Your task to perform on an android device: turn off smart reply in the gmail app Image 0: 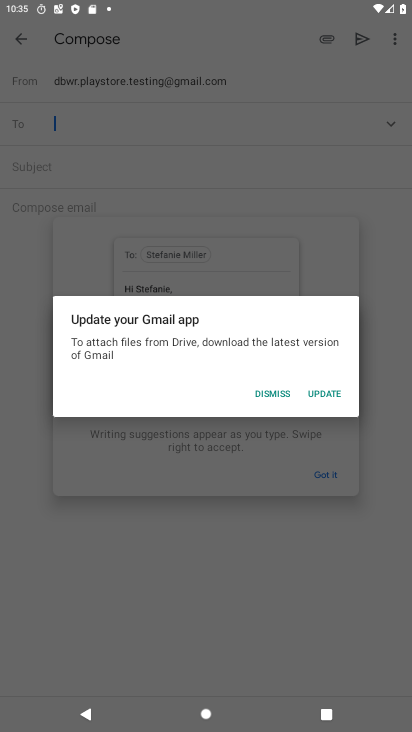
Step 0: press home button
Your task to perform on an android device: turn off smart reply in the gmail app Image 1: 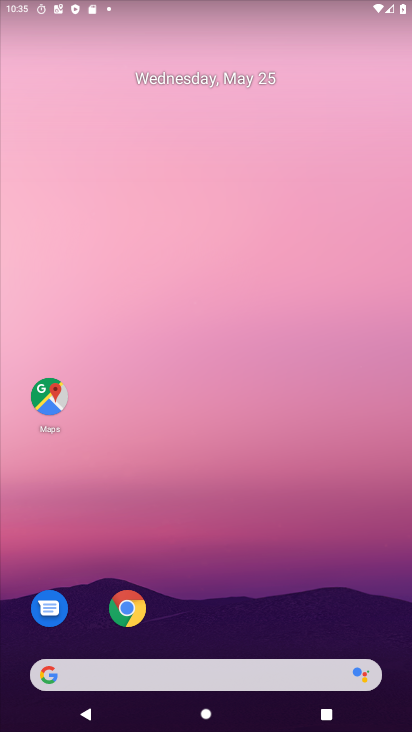
Step 1: drag from (249, 620) to (249, 154)
Your task to perform on an android device: turn off smart reply in the gmail app Image 2: 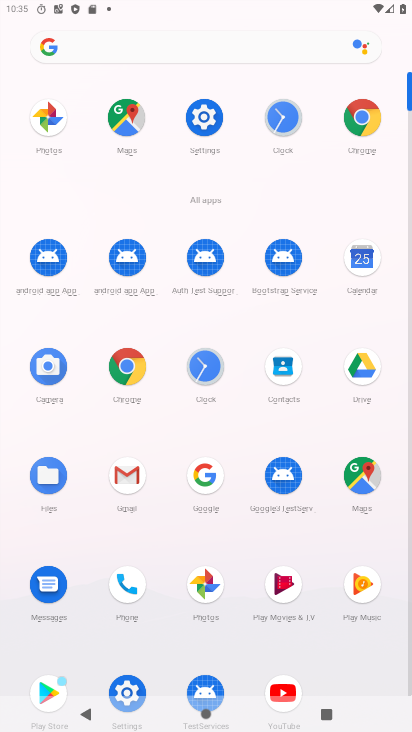
Step 2: click (134, 482)
Your task to perform on an android device: turn off smart reply in the gmail app Image 3: 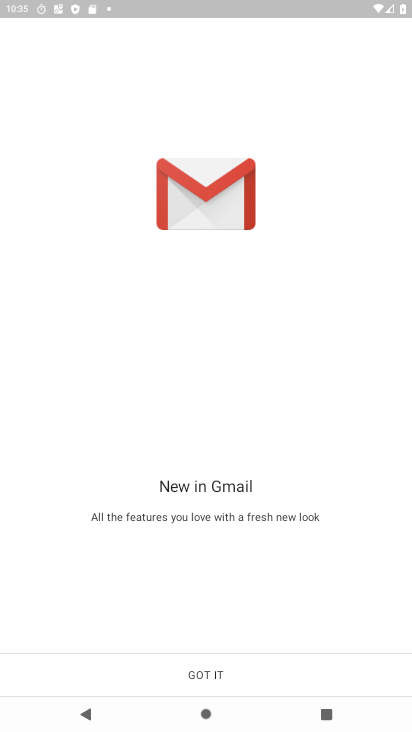
Step 3: click (217, 681)
Your task to perform on an android device: turn off smart reply in the gmail app Image 4: 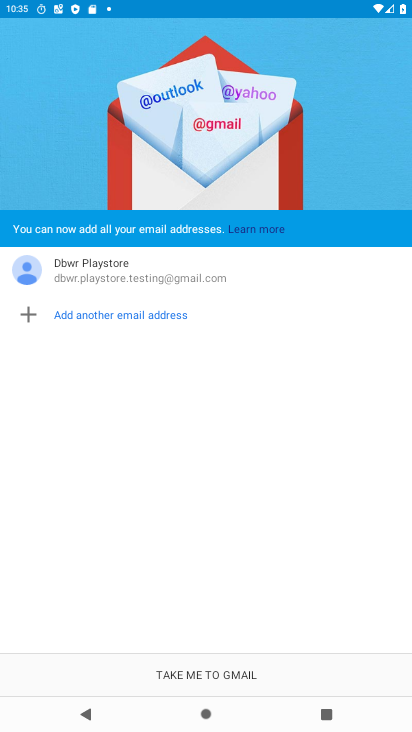
Step 4: click (217, 681)
Your task to perform on an android device: turn off smart reply in the gmail app Image 5: 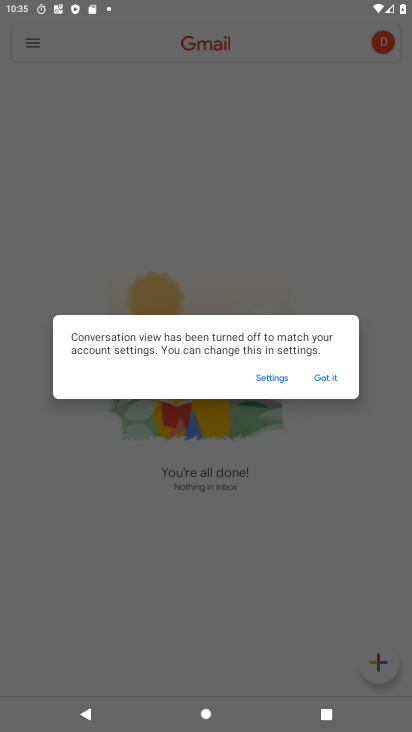
Step 5: click (328, 386)
Your task to perform on an android device: turn off smart reply in the gmail app Image 6: 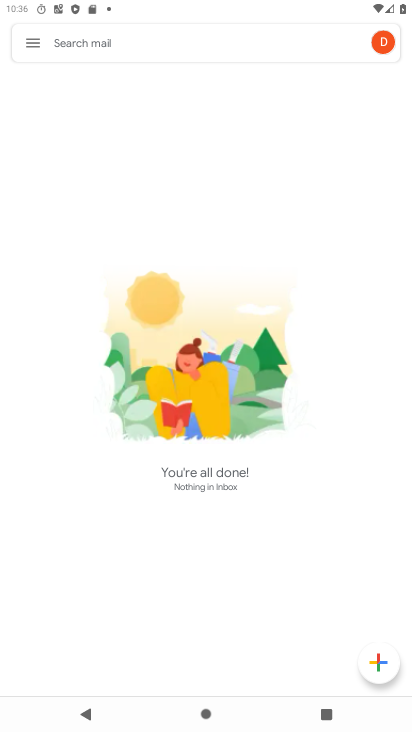
Step 6: click (30, 48)
Your task to perform on an android device: turn off smart reply in the gmail app Image 7: 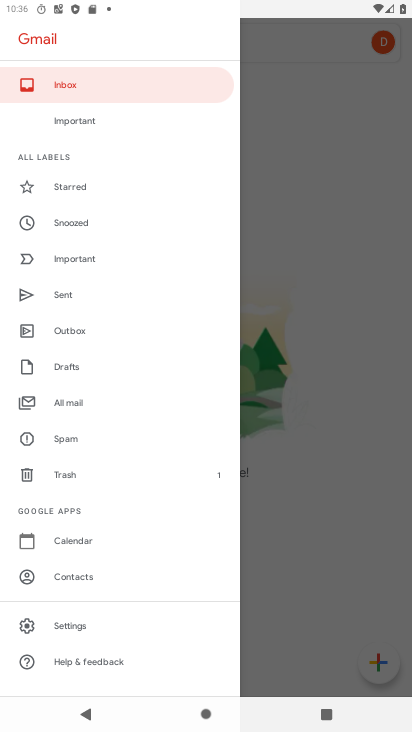
Step 7: click (102, 637)
Your task to perform on an android device: turn off smart reply in the gmail app Image 8: 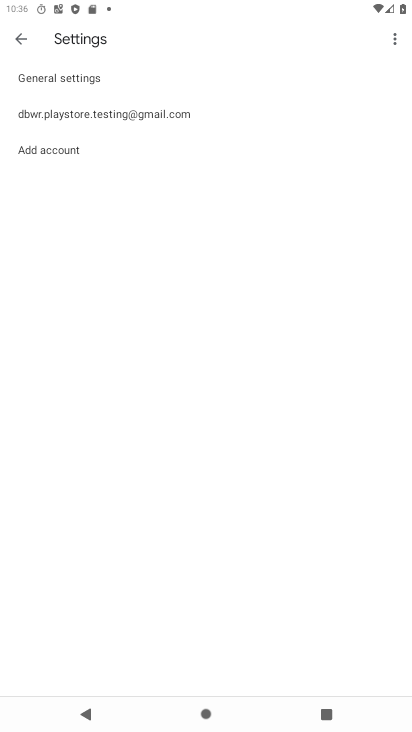
Step 8: click (276, 108)
Your task to perform on an android device: turn off smart reply in the gmail app Image 9: 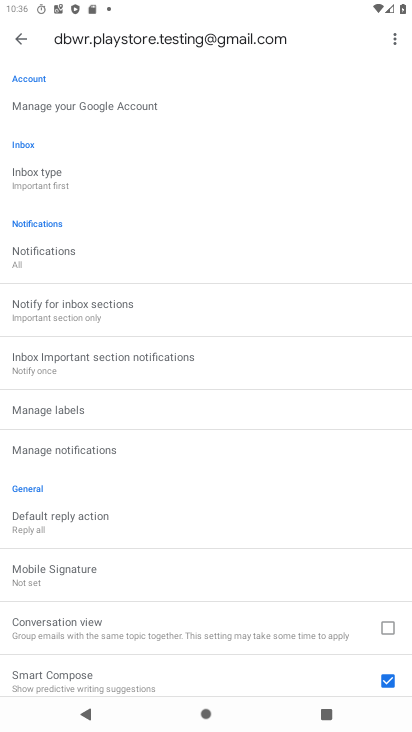
Step 9: drag from (235, 121) to (187, 175)
Your task to perform on an android device: turn off smart reply in the gmail app Image 10: 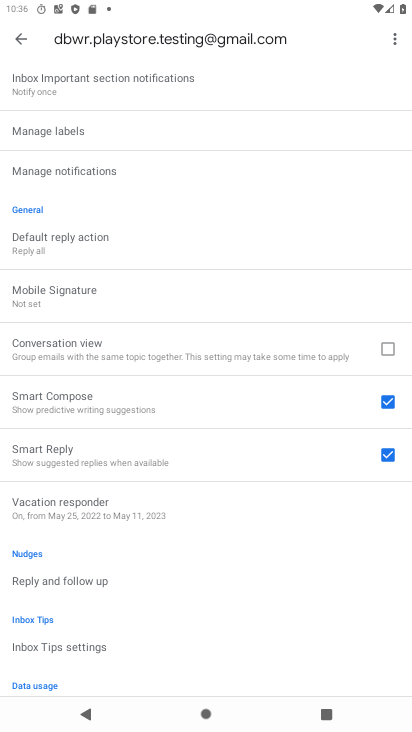
Step 10: click (394, 453)
Your task to perform on an android device: turn off smart reply in the gmail app Image 11: 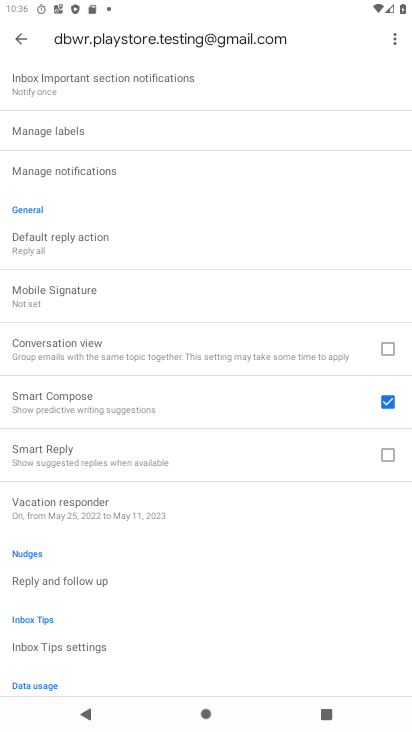
Step 11: task complete